Your task to perform on an android device: manage bookmarks in the chrome app Image 0: 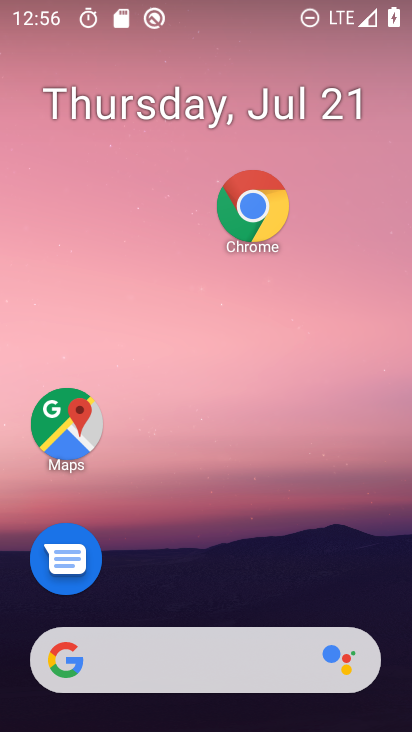
Step 0: drag from (182, 689) to (194, 80)
Your task to perform on an android device: manage bookmarks in the chrome app Image 1: 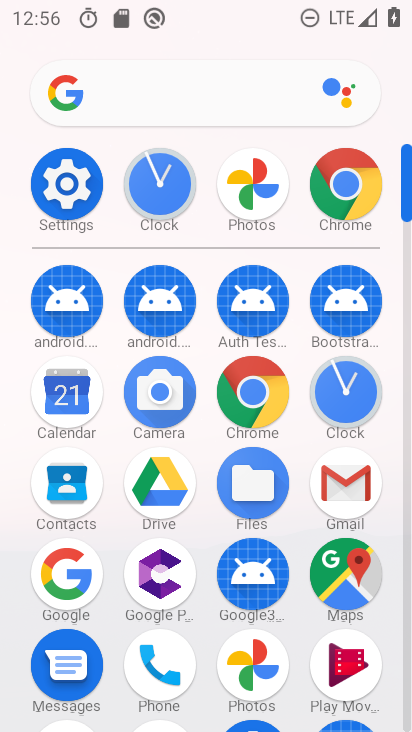
Step 1: click (248, 414)
Your task to perform on an android device: manage bookmarks in the chrome app Image 2: 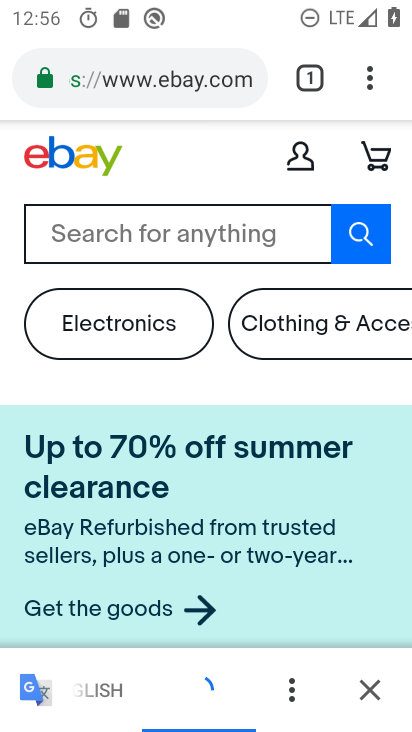
Step 2: click (378, 96)
Your task to perform on an android device: manage bookmarks in the chrome app Image 3: 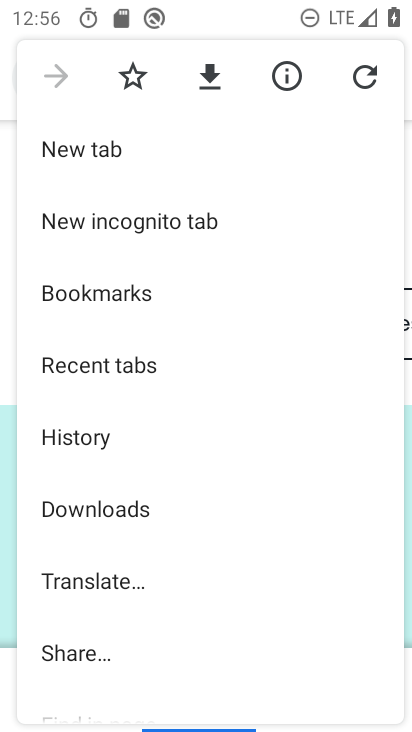
Step 3: click (127, 294)
Your task to perform on an android device: manage bookmarks in the chrome app Image 4: 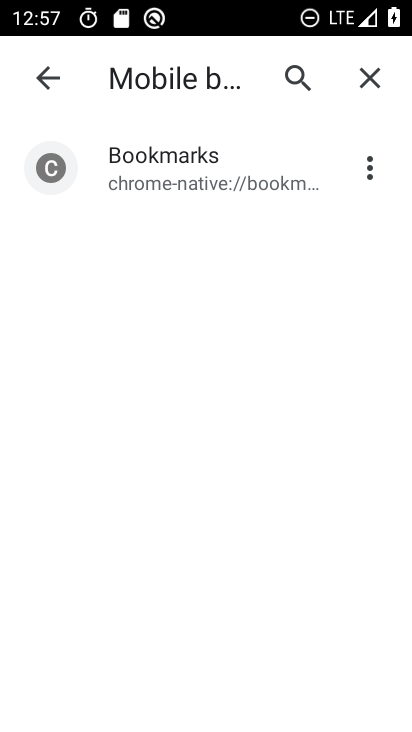
Step 4: task complete